Your task to perform on an android device: toggle translation in the chrome app Image 0: 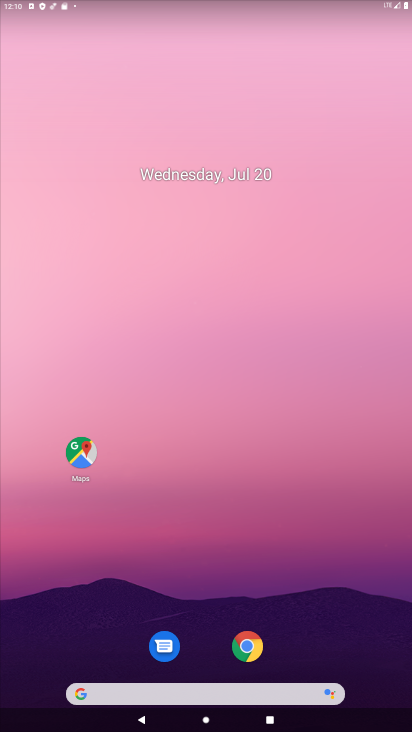
Step 0: click (244, 664)
Your task to perform on an android device: toggle translation in the chrome app Image 1: 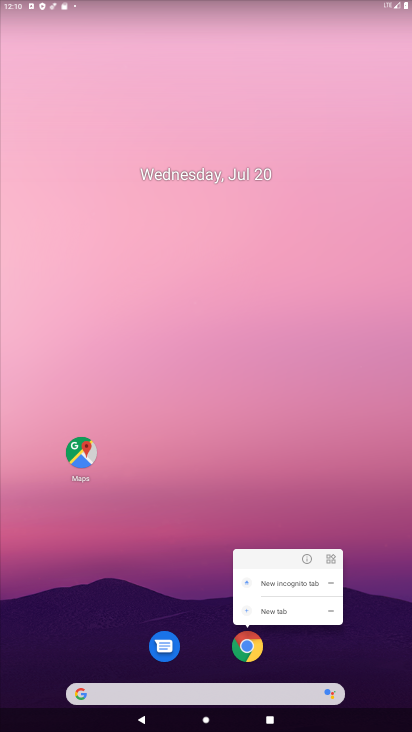
Step 1: click (242, 647)
Your task to perform on an android device: toggle translation in the chrome app Image 2: 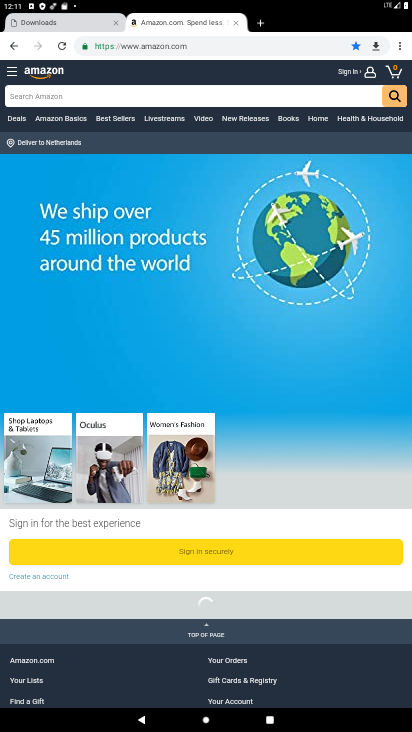
Step 2: click (404, 45)
Your task to perform on an android device: toggle translation in the chrome app Image 3: 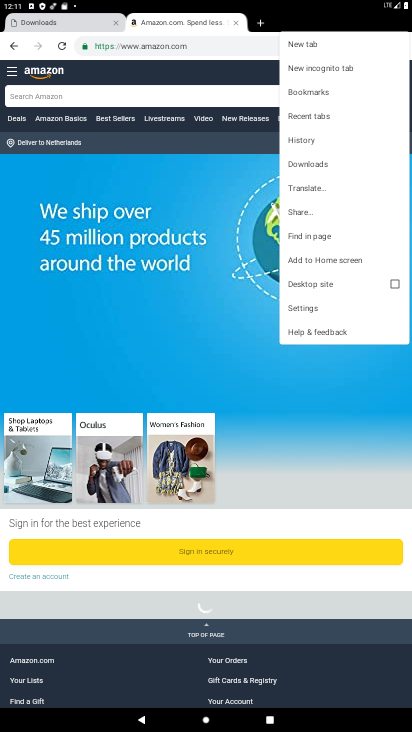
Step 3: click (316, 307)
Your task to perform on an android device: toggle translation in the chrome app Image 4: 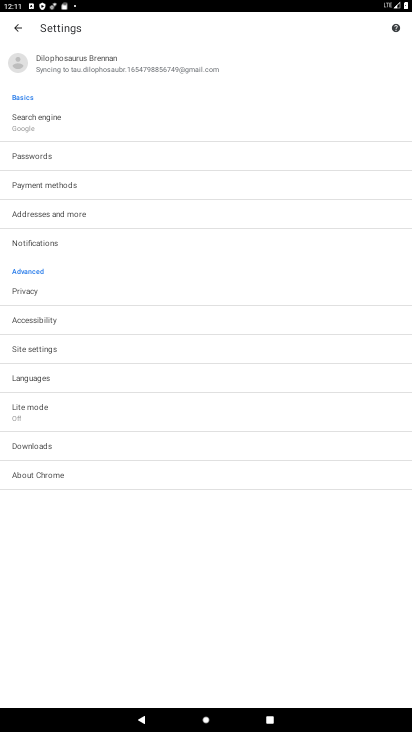
Step 4: click (91, 373)
Your task to perform on an android device: toggle translation in the chrome app Image 5: 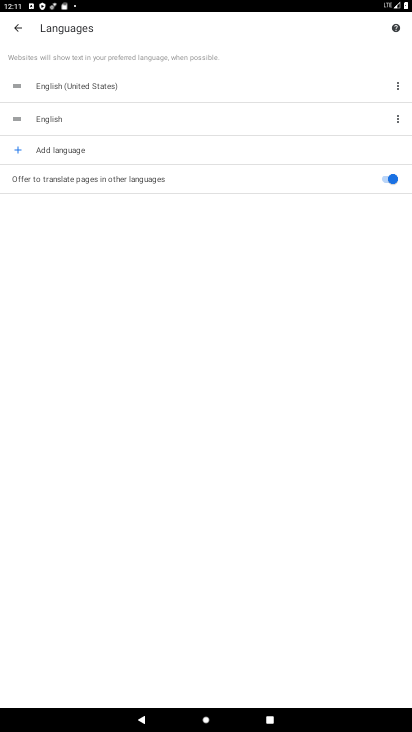
Step 5: click (384, 184)
Your task to perform on an android device: toggle translation in the chrome app Image 6: 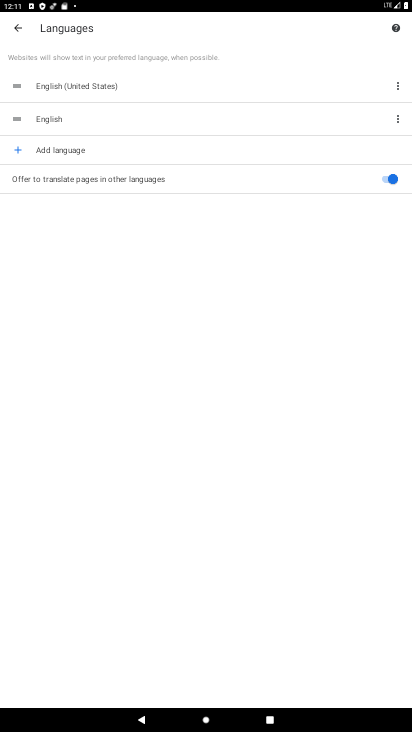
Step 6: click (384, 184)
Your task to perform on an android device: toggle translation in the chrome app Image 7: 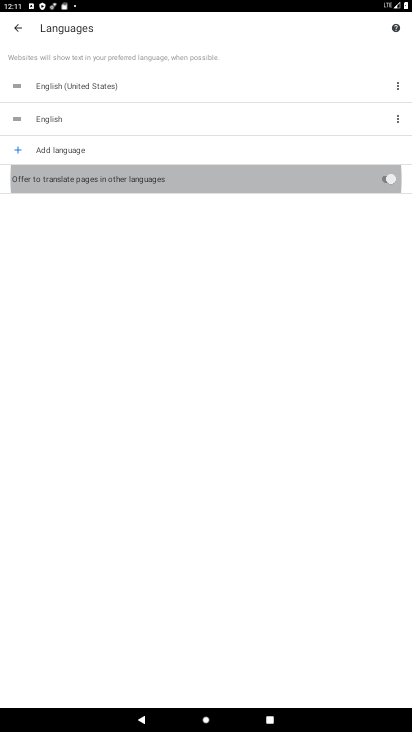
Step 7: click (384, 184)
Your task to perform on an android device: toggle translation in the chrome app Image 8: 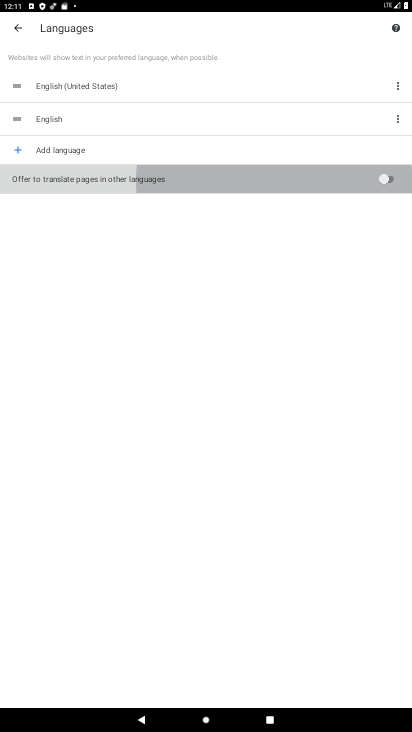
Step 8: click (384, 184)
Your task to perform on an android device: toggle translation in the chrome app Image 9: 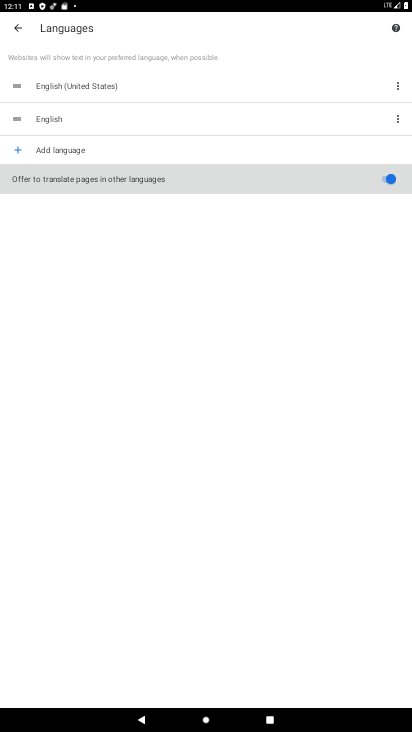
Step 9: click (384, 184)
Your task to perform on an android device: toggle translation in the chrome app Image 10: 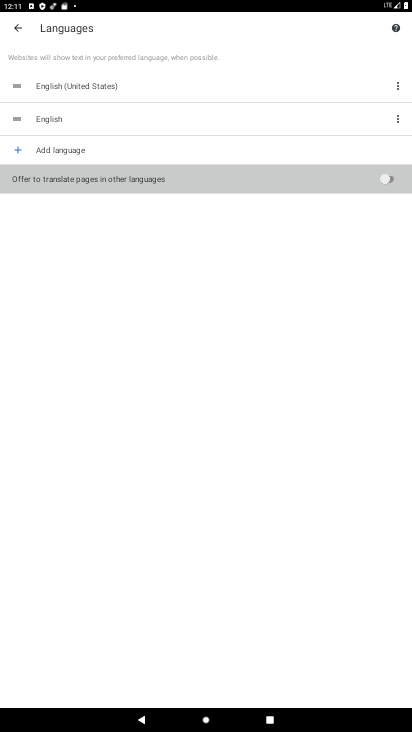
Step 10: click (384, 184)
Your task to perform on an android device: toggle translation in the chrome app Image 11: 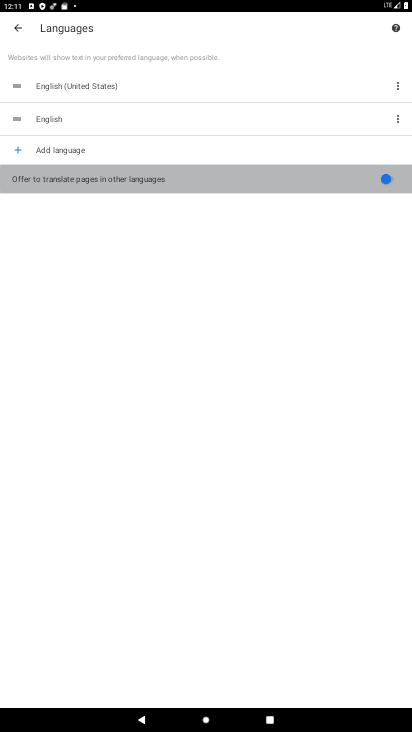
Step 11: click (384, 184)
Your task to perform on an android device: toggle translation in the chrome app Image 12: 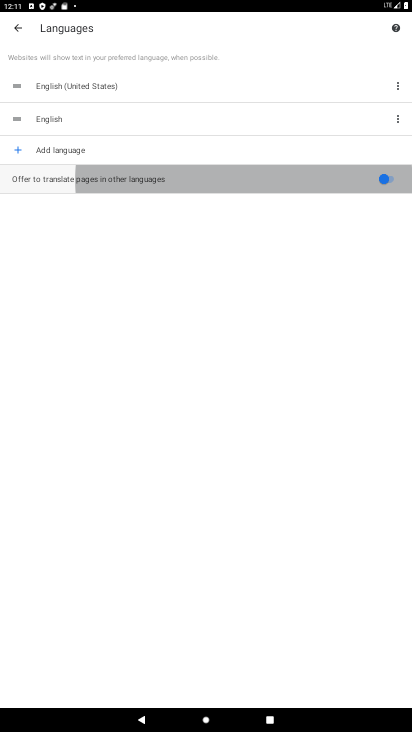
Step 12: click (384, 184)
Your task to perform on an android device: toggle translation in the chrome app Image 13: 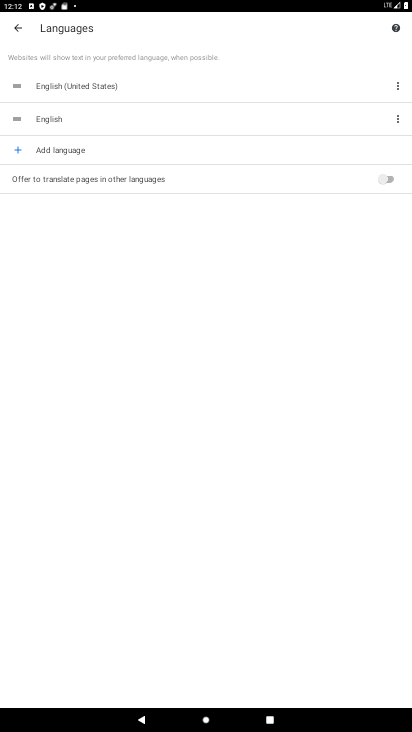
Step 13: click (381, 182)
Your task to perform on an android device: toggle translation in the chrome app Image 14: 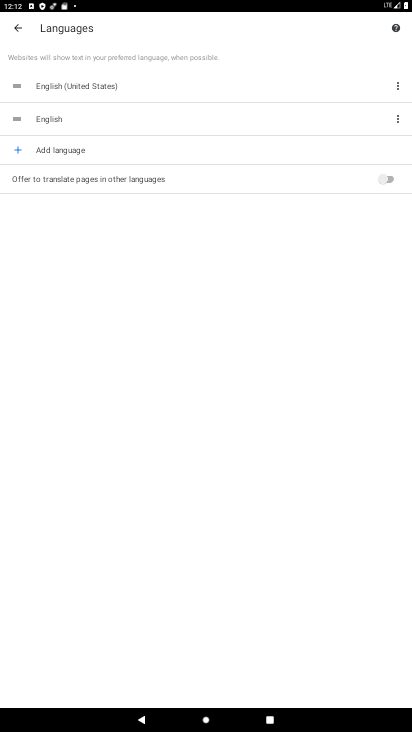
Step 14: click (381, 182)
Your task to perform on an android device: toggle translation in the chrome app Image 15: 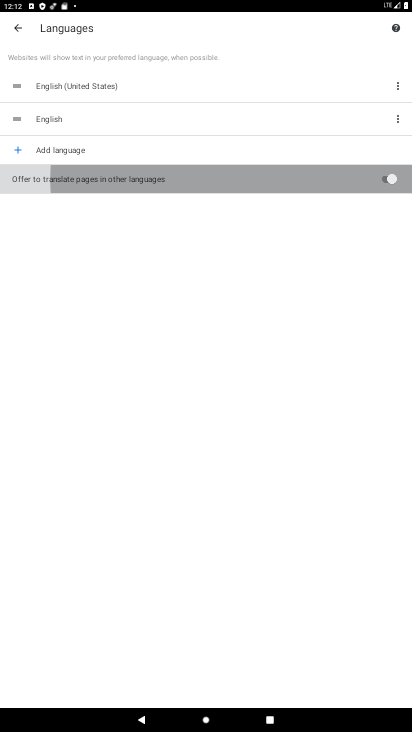
Step 15: click (381, 182)
Your task to perform on an android device: toggle translation in the chrome app Image 16: 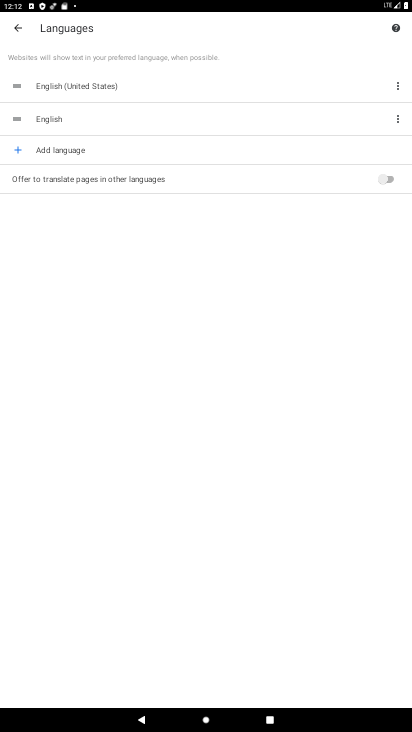
Step 16: click (381, 182)
Your task to perform on an android device: toggle translation in the chrome app Image 17: 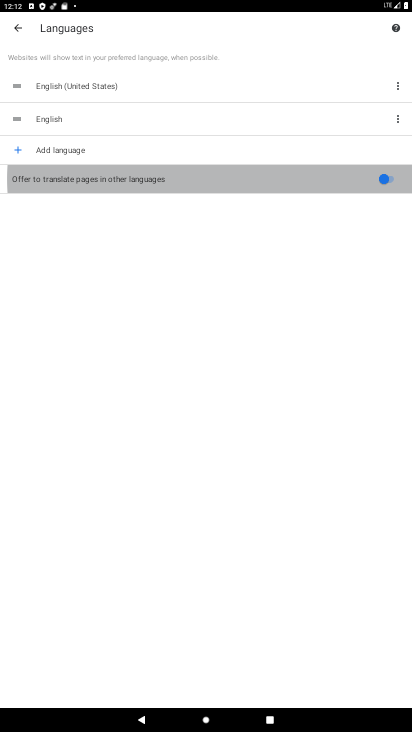
Step 17: click (381, 182)
Your task to perform on an android device: toggle translation in the chrome app Image 18: 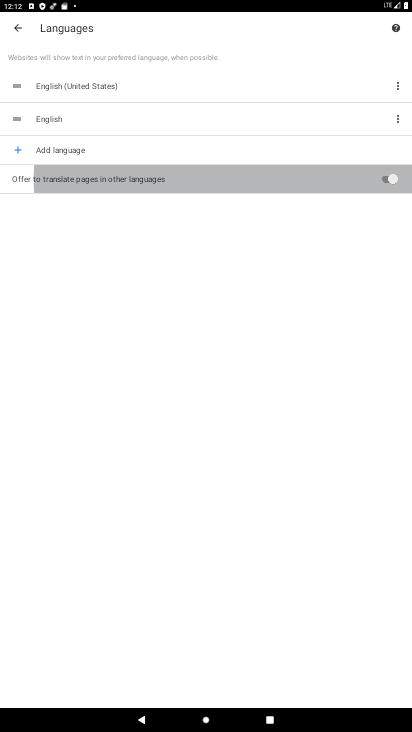
Step 18: click (381, 182)
Your task to perform on an android device: toggle translation in the chrome app Image 19: 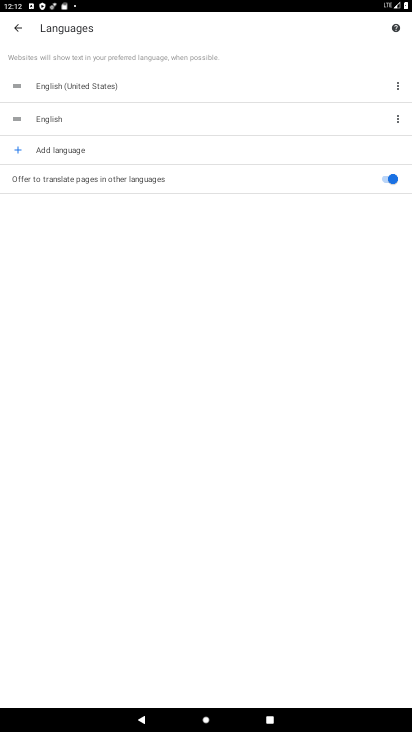
Step 19: task complete